Your task to perform on an android device: open chrome privacy settings Image 0: 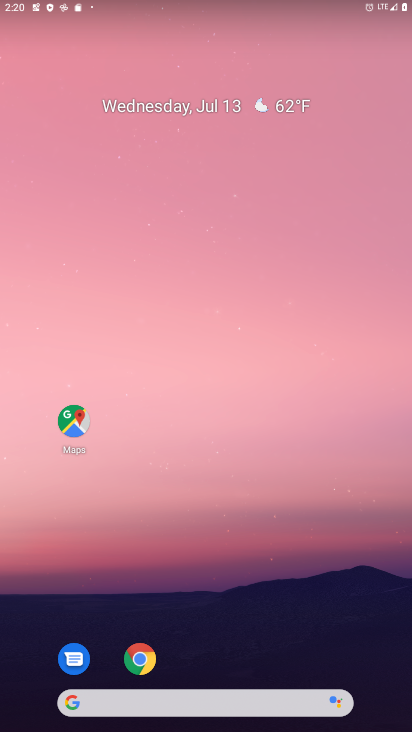
Step 0: drag from (232, 707) to (226, 490)
Your task to perform on an android device: open chrome privacy settings Image 1: 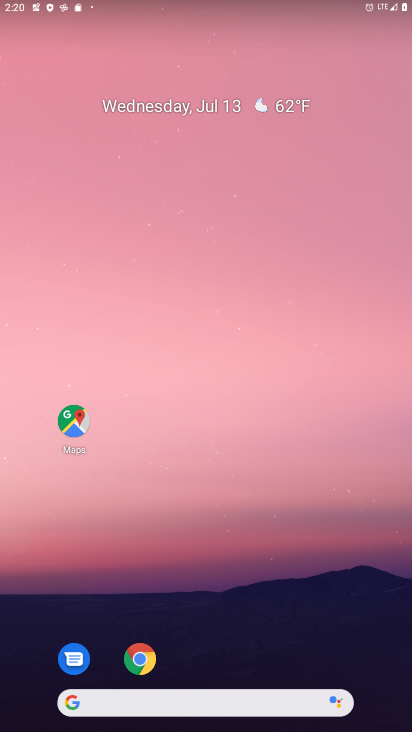
Step 1: drag from (210, 227) to (190, 74)
Your task to perform on an android device: open chrome privacy settings Image 2: 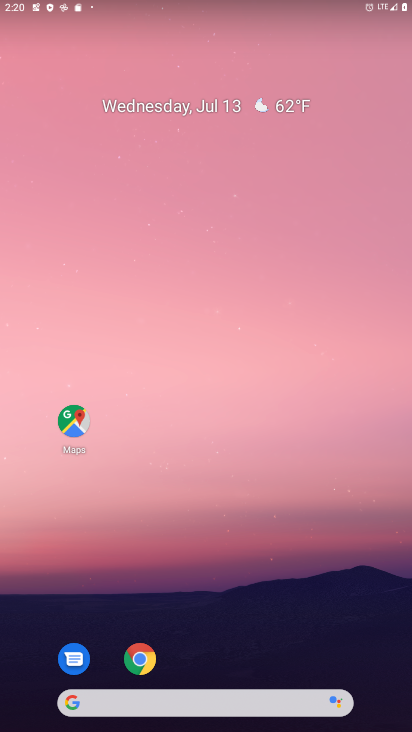
Step 2: drag from (214, 708) to (187, 226)
Your task to perform on an android device: open chrome privacy settings Image 3: 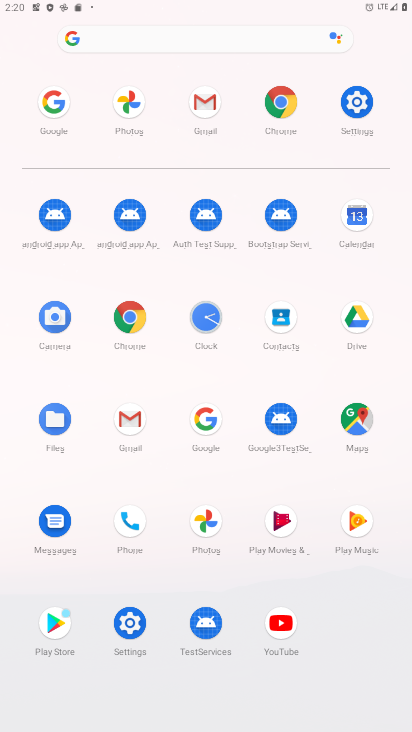
Step 3: click (127, 317)
Your task to perform on an android device: open chrome privacy settings Image 4: 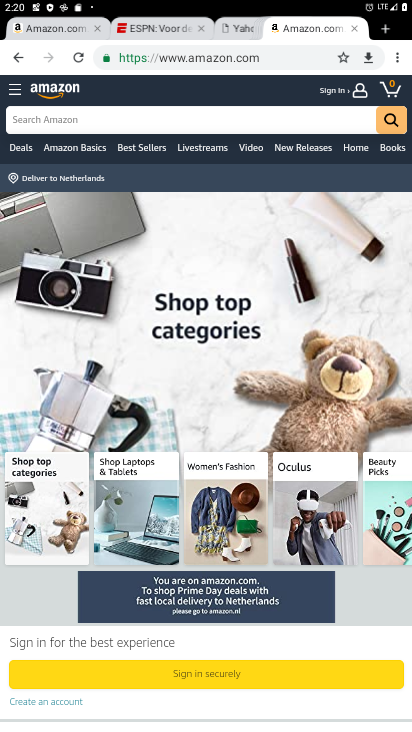
Step 4: click (397, 58)
Your task to perform on an android device: open chrome privacy settings Image 5: 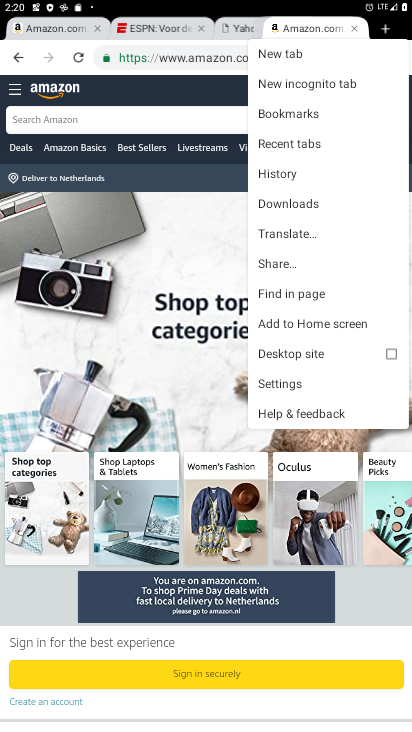
Step 5: click (281, 384)
Your task to perform on an android device: open chrome privacy settings Image 6: 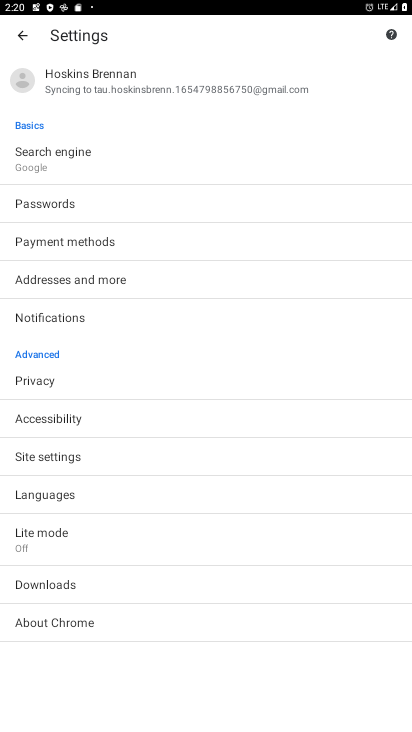
Step 6: click (43, 379)
Your task to perform on an android device: open chrome privacy settings Image 7: 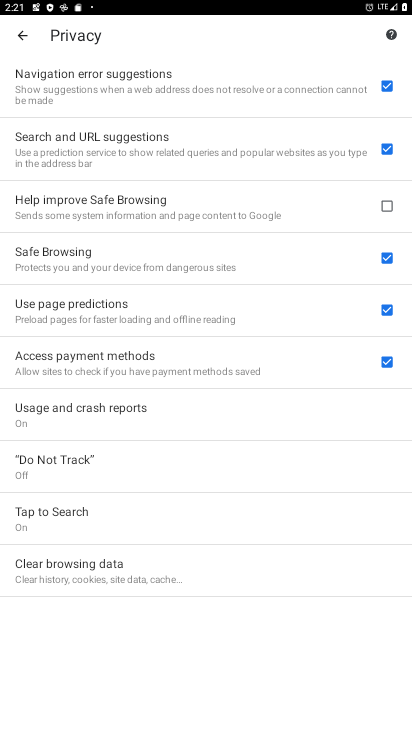
Step 7: task complete